Your task to perform on an android device: turn off translation in the chrome app Image 0: 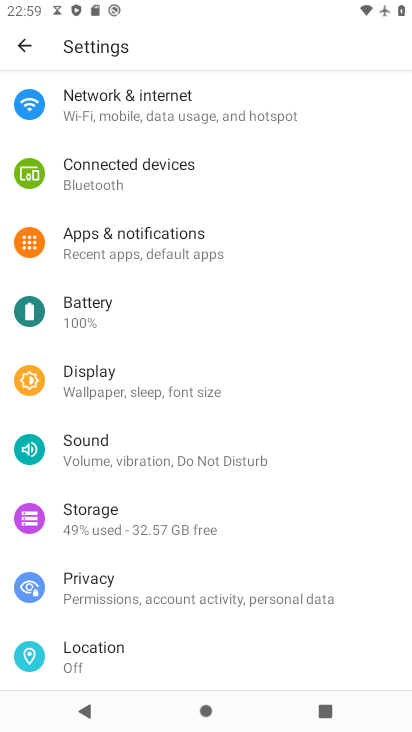
Step 0: press back button
Your task to perform on an android device: turn off translation in the chrome app Image 1: 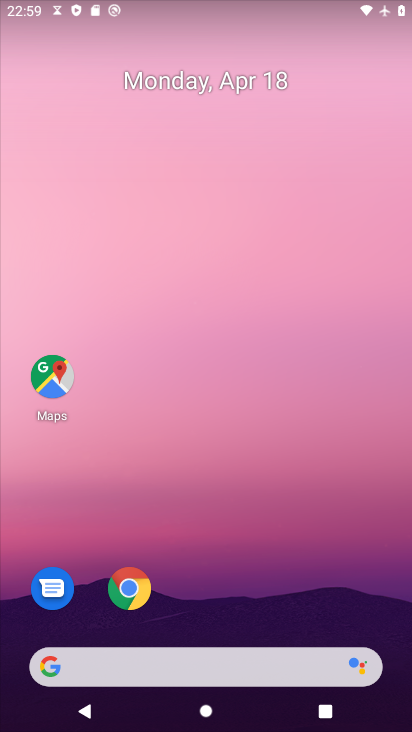
Step 1: drag from (280, 590) to (325, 34)
Your task to perform on an android device: turn off translation in the chrome app Image 2: 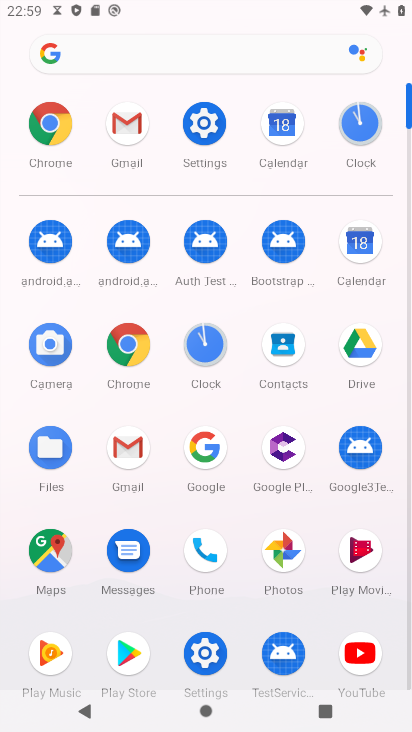
Step 2: click (49, 123)
Your task to perform on an android device: turn off translation in the chrome app Image 3: 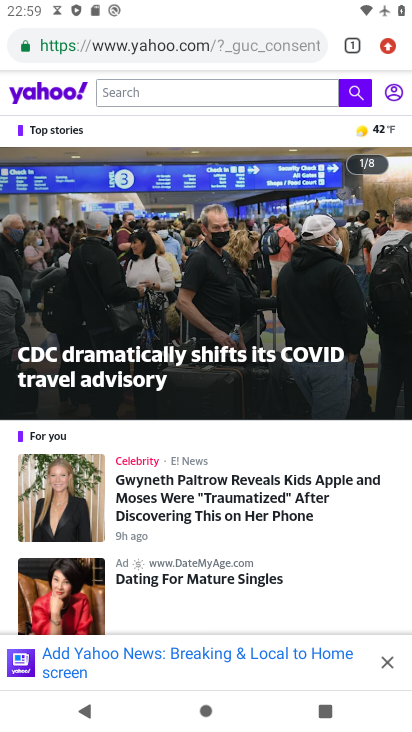
Step 3: drag from (390, 40) to (244, 595)
Your task to perform on an android device: turn off translation in the chrome app Image 4: 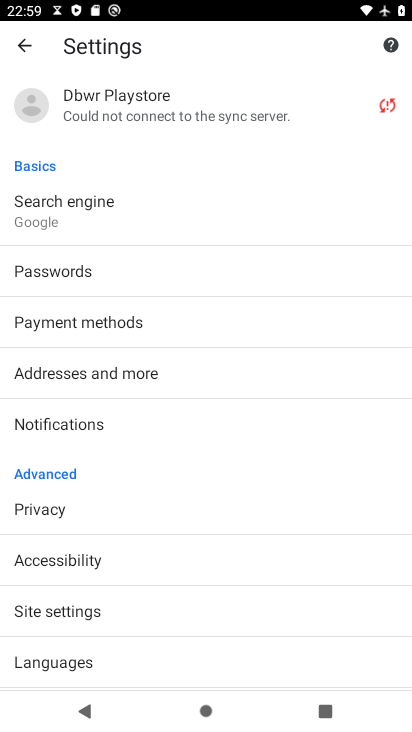
Step 4: drag from (212, 498) to (208, 215)
Your task to perform on an android device: turn off translation in the chrome app Image 5: 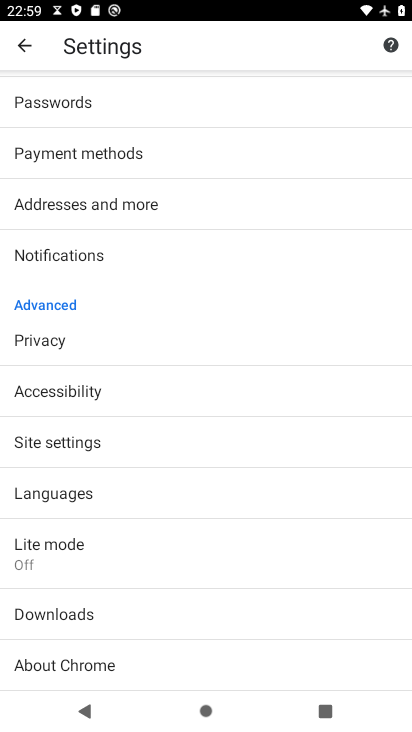
Step 5: click (102, 495)
Your task to perform on an android device: turn off translation in the chrome app Image 6: 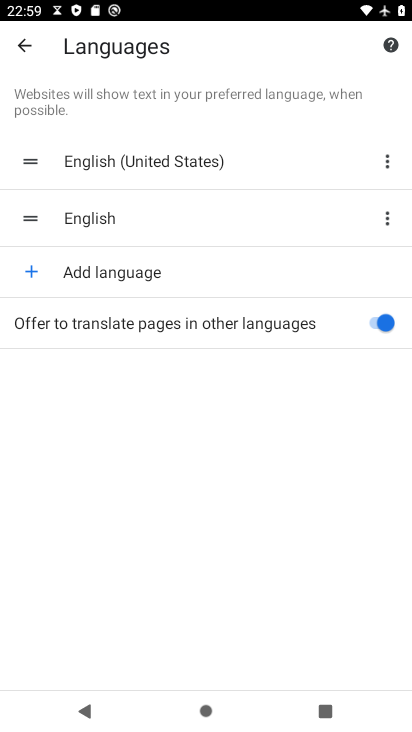
Step 6: click (378, 328)
Your task to perform on an android device: turn off translation in the chrome app Image 7: 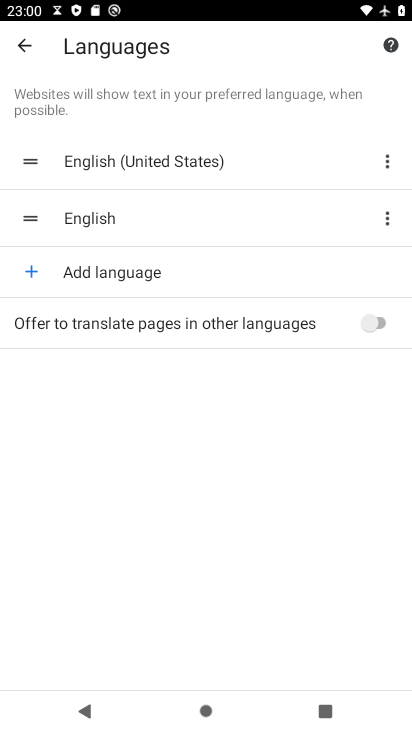
Step 7: task complete